Your task to perform on an android device: turn on priority inbox in the gmail app Image 0: 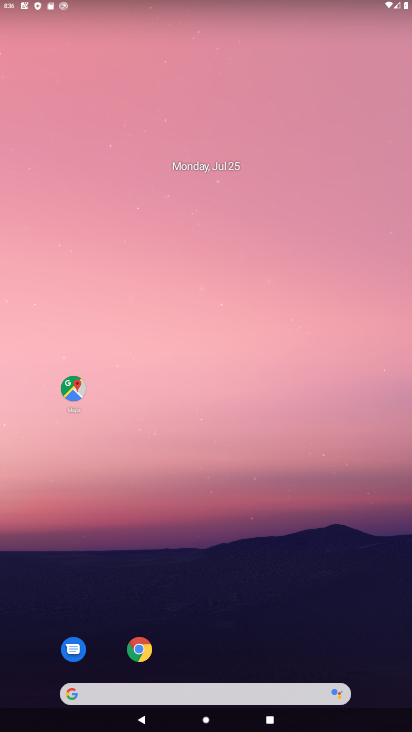
Step 0: drag from (209, 674) to (206, 268)
Your task to perform on an android device: turn on priority inbox in the gmail app Image 1: 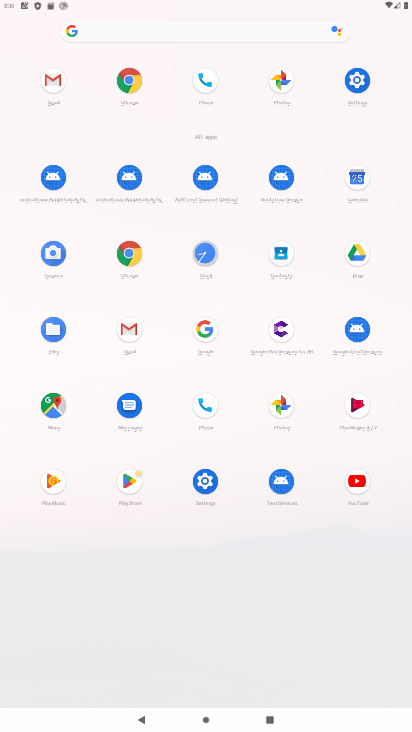
Step 1: click (130, 329)
Your task to perform on an android device: turn on priority inbox in the gmail app Image 2: 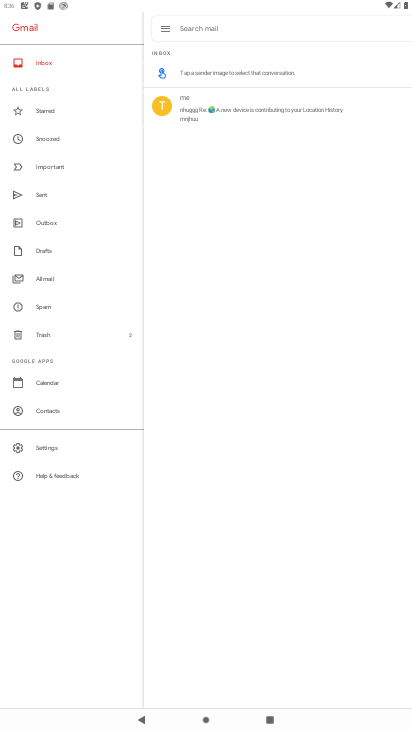
Step 2: click (58, 450)
Your task to perform on an android device: turn on priority inbox in the gmail app Image 3: 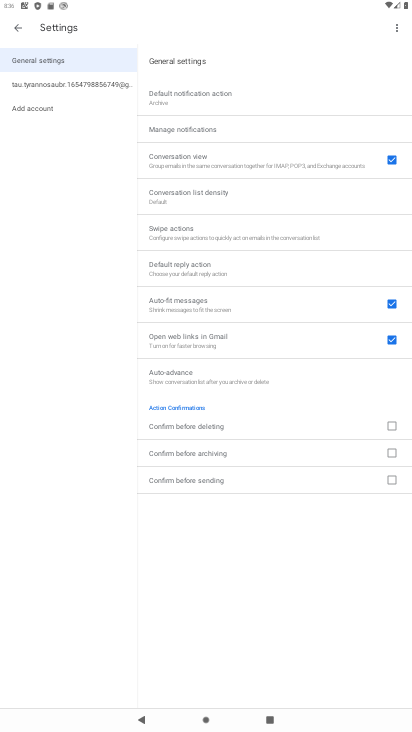
Step 3: click (105, 82)
Your task to perform on an android device: turn on priority inbox in the gmail app Image 4: 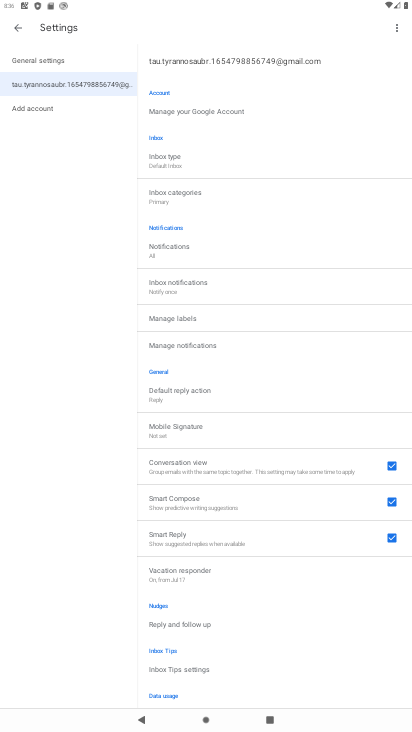
Step 4: click (164, 167)
Your task to perform on an android device: turn on priority inbox in the gmail app Image 5: 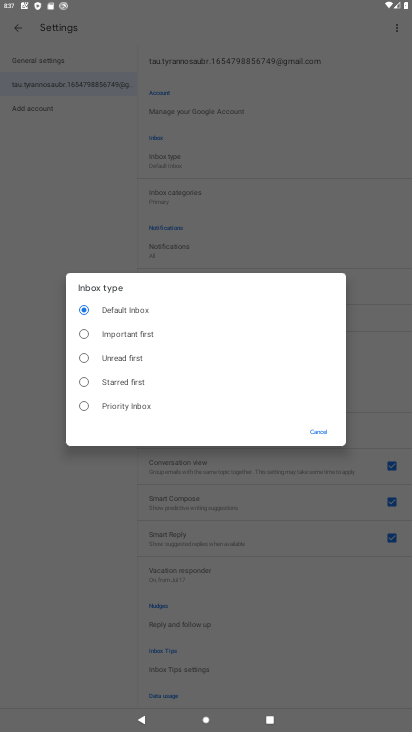
Step 5: click (117, 399)
Your task to perform on an android device: turn on priority inbox in the gmail app Image 6: 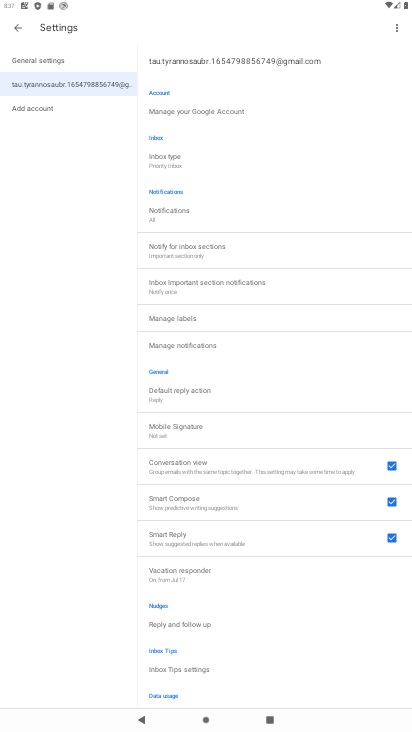
Step 6: task complete